Your task to perform on an android device: turn notification dots on Image 0: 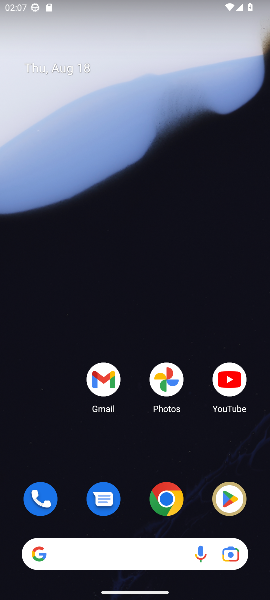
Step 0: drag from (147, 469) to (121, 89)
Your task to perform on an android device: turn notification dots on Image 1: 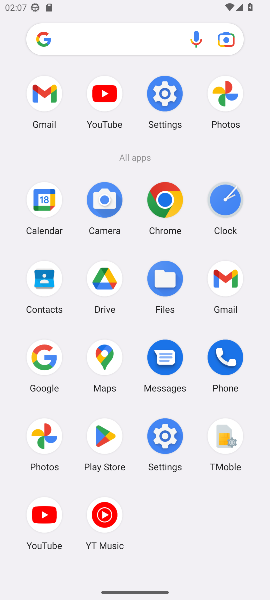
Step 1: click (164, 95)
Your task to perform on an android device: turn notification dots on Image 2: 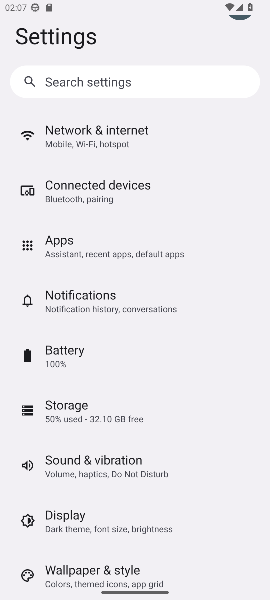
Step 2: click (92, 291)
Your task to perform on an android device: turn notification dots on Image 3: 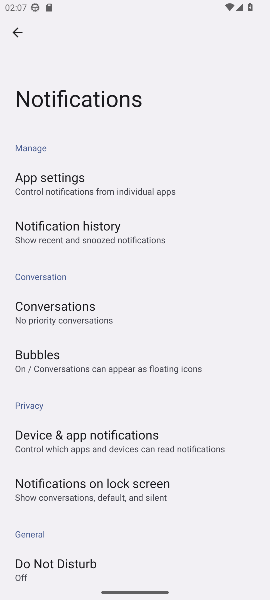
Step 3: task complete